Your task to perform on an android device: manage bookmarks in the chrome app Image 0: 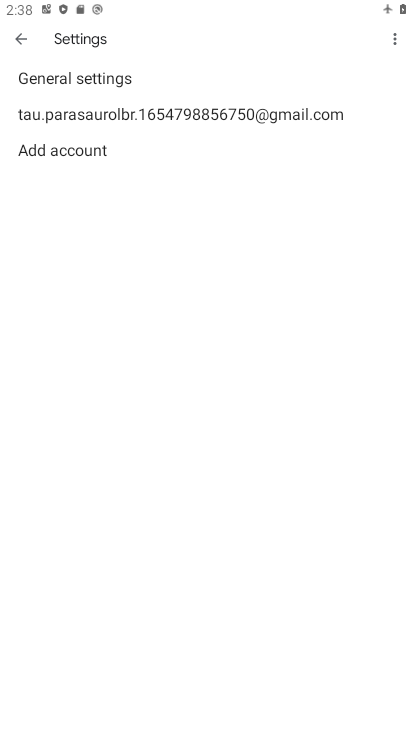
Step 0: press home button
Your task to perform on an android device: manage bookmarks in the chrome app Image 1: 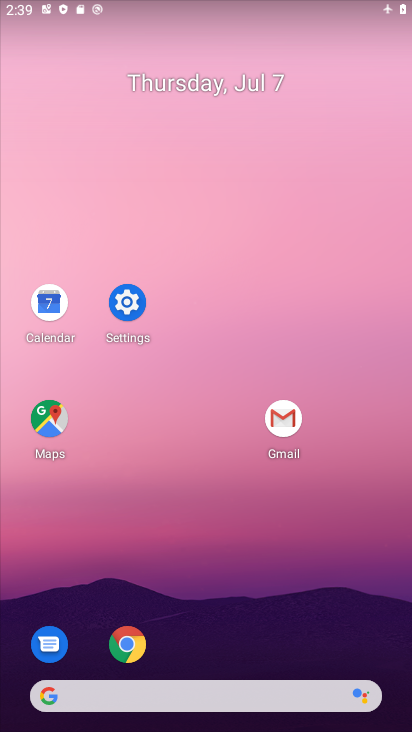
Step 1: click (134, 641)
Your task to perform on an android device: manage bookmarks in the chrome app Image 2: 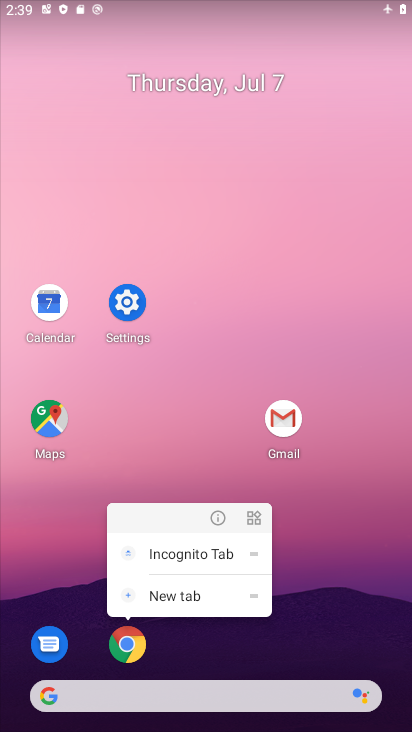
Step 2: click (125, 647)
Your task to perform on an android device: manage bookmarks in the chrome app Image 3: 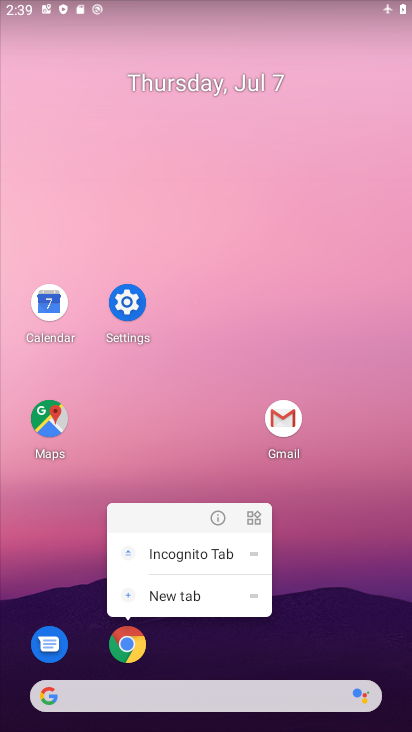
Step 3: click (125, 647)
Your task to perform on an android device: manage bookmarks in the chrome app Image 4: 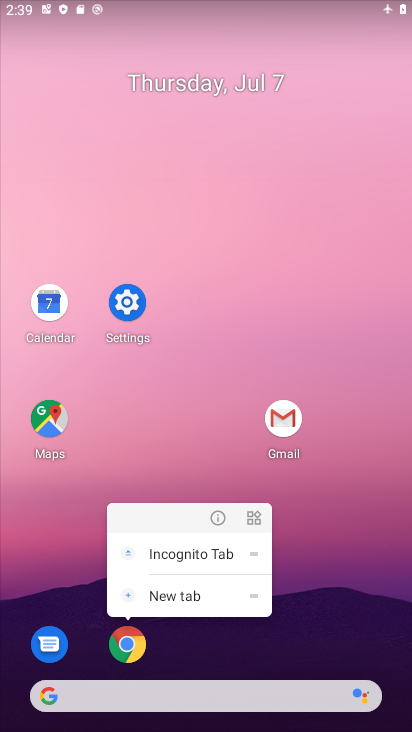
Step 4: click (125, 646)
Your task to perform on an android device: manage bookmarks in the chrome app Image 5: 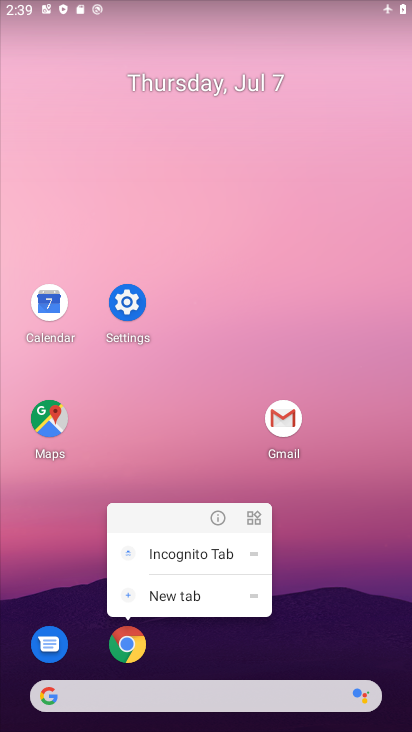
Step 5: click (133, 634)
Your task to perform on an android device: manage bookmarks in the chrome app Image 6: 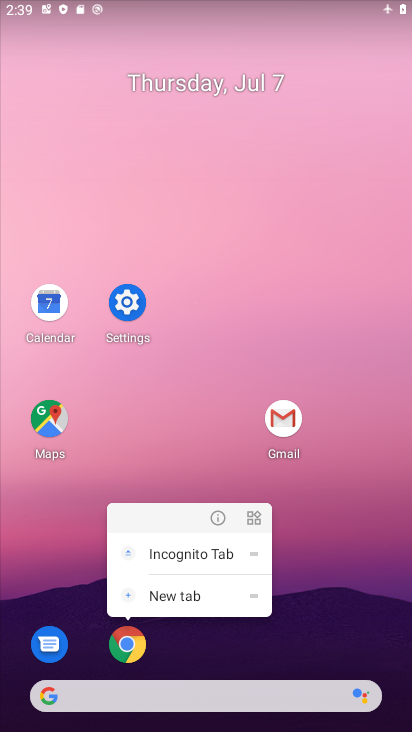
Step 6: click (135, 637)
Your task to perform on an android device: manage bookmarks in the chrome app Image 7: 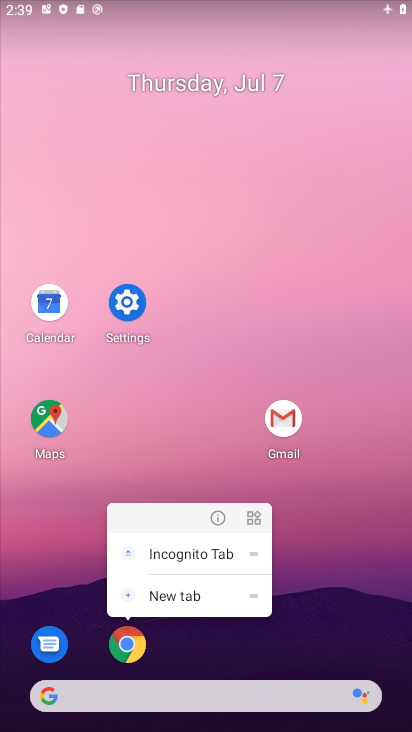
Step 7: click (118, 647)
Your task to perform on an android device: manage bookmarks in the chrome app Image 8: 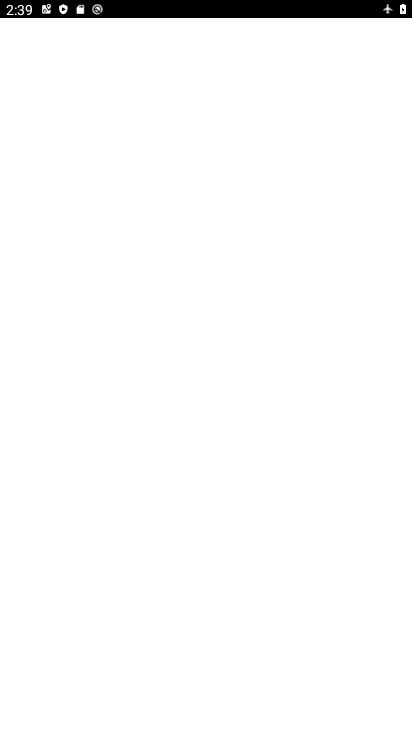
Step 8: click (121, 640)
Your task to perform on an android device: manage bookmarks in the chrome app Image 9: 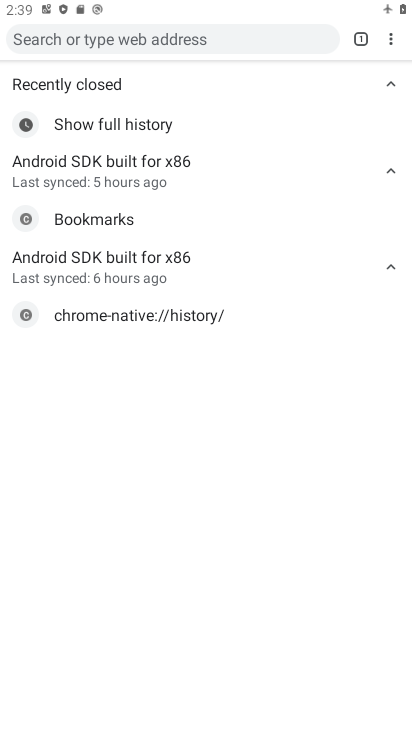
Step 9: click (388, 36)
Your task to perform on an android device: manage bookmarks in the chrome app Image 10: 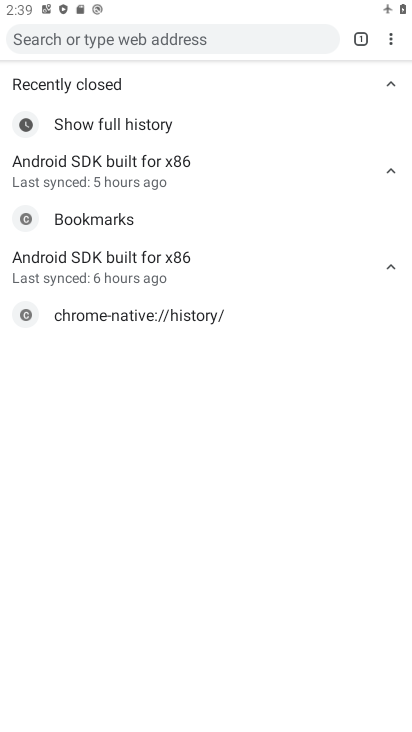
Step 10: click (388, 36)
Your task to perform on an android device: manage bookmarks in the chrome app Image 11: 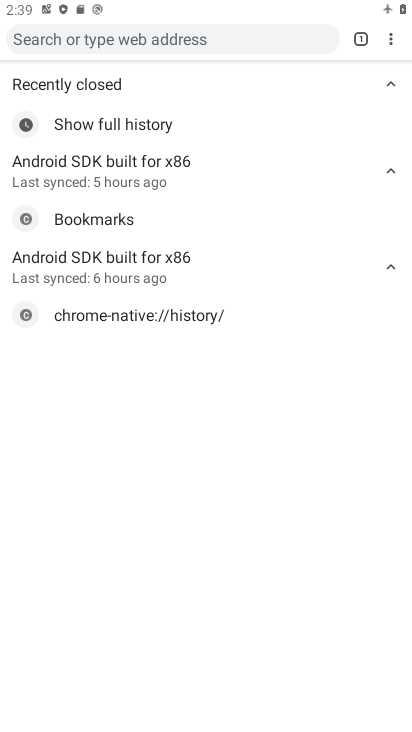
Step 11: click (391, 41)
Your task to perform on an android device: manage bookmarks in the chrome app Image 12: 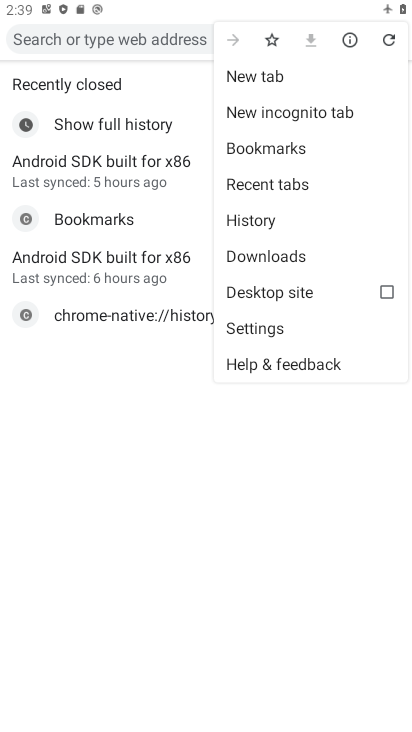
Step 12: click (391, 41)
Your task to perform on an android device: manage bookmarks in the chrome app Image 13: 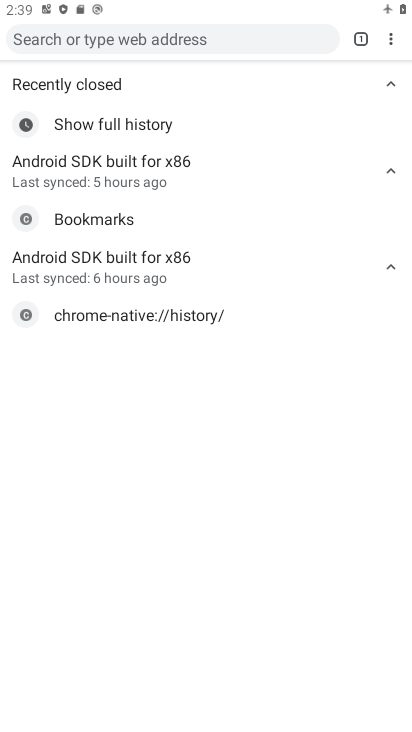
Step 13: click (391, 41)
Your task to perform on an android device: manage bookmarks in the chrome app Image 14: 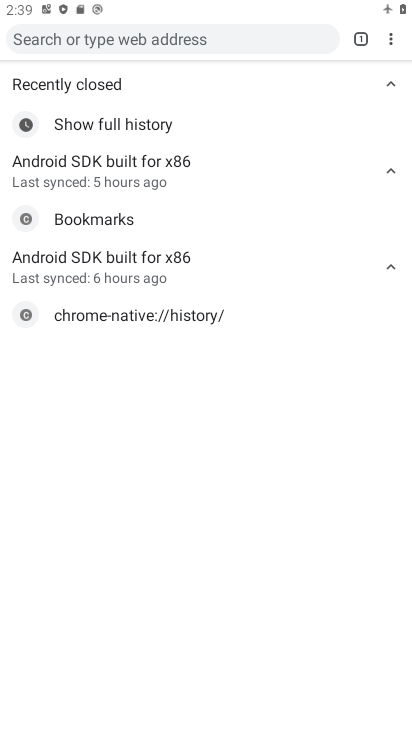
Step 14: click (391, 41)
Your task to perform on an android device: manage bookmarks in the chrome app Image 15: 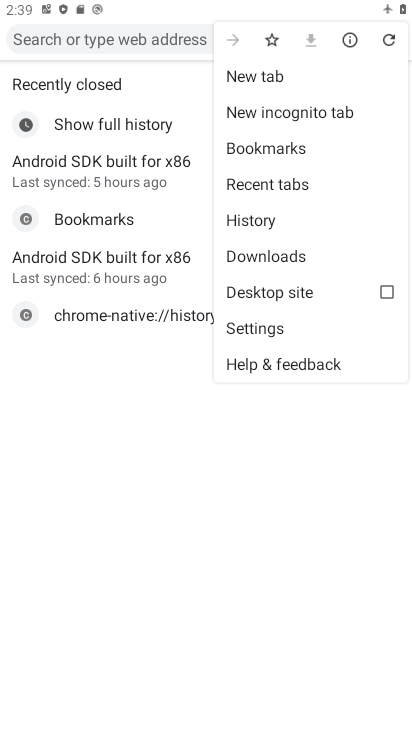
Step 15: click (252, 146)
Your task to perform on an android device: manage bookmarks in the chrome app Image 16: 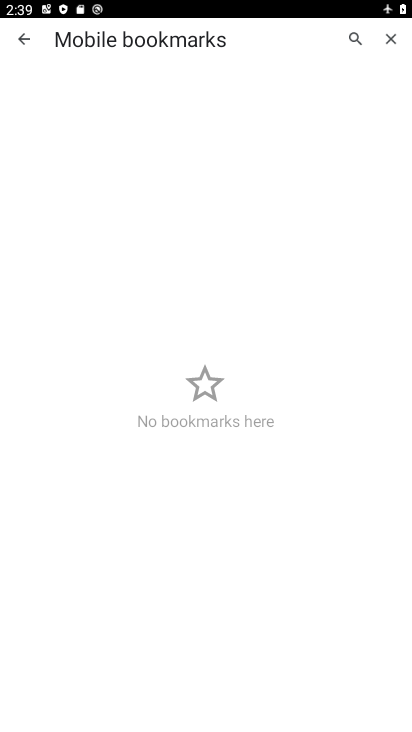
Step 16: task complete